Your task to perform on an android device: Add logitech g933 to the cart on bestbuy, then select checkout. Image 0: 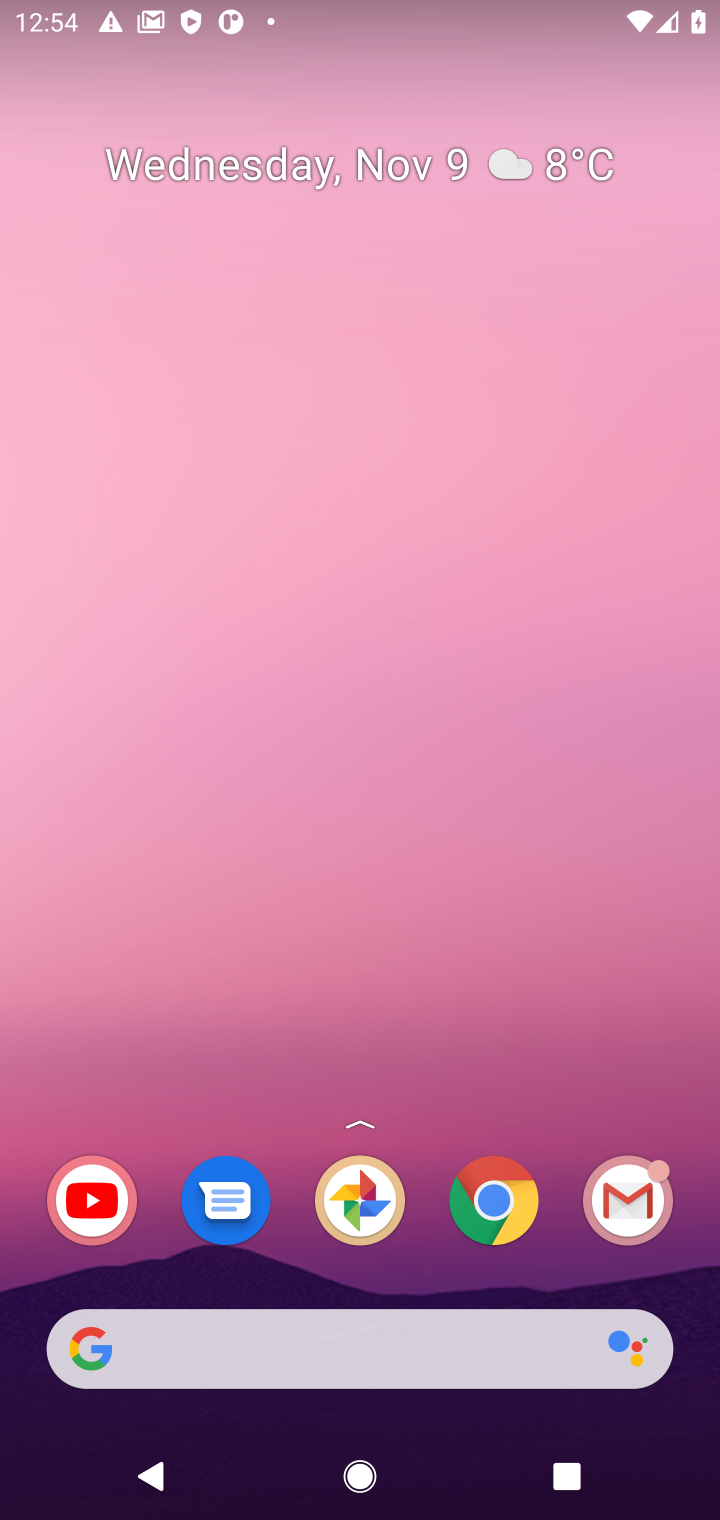
Step 0: click (287, 1377)
Your task to perform on an android device: Add logitech g933 to the cart on bestbuy, then select checkout. Image 1: 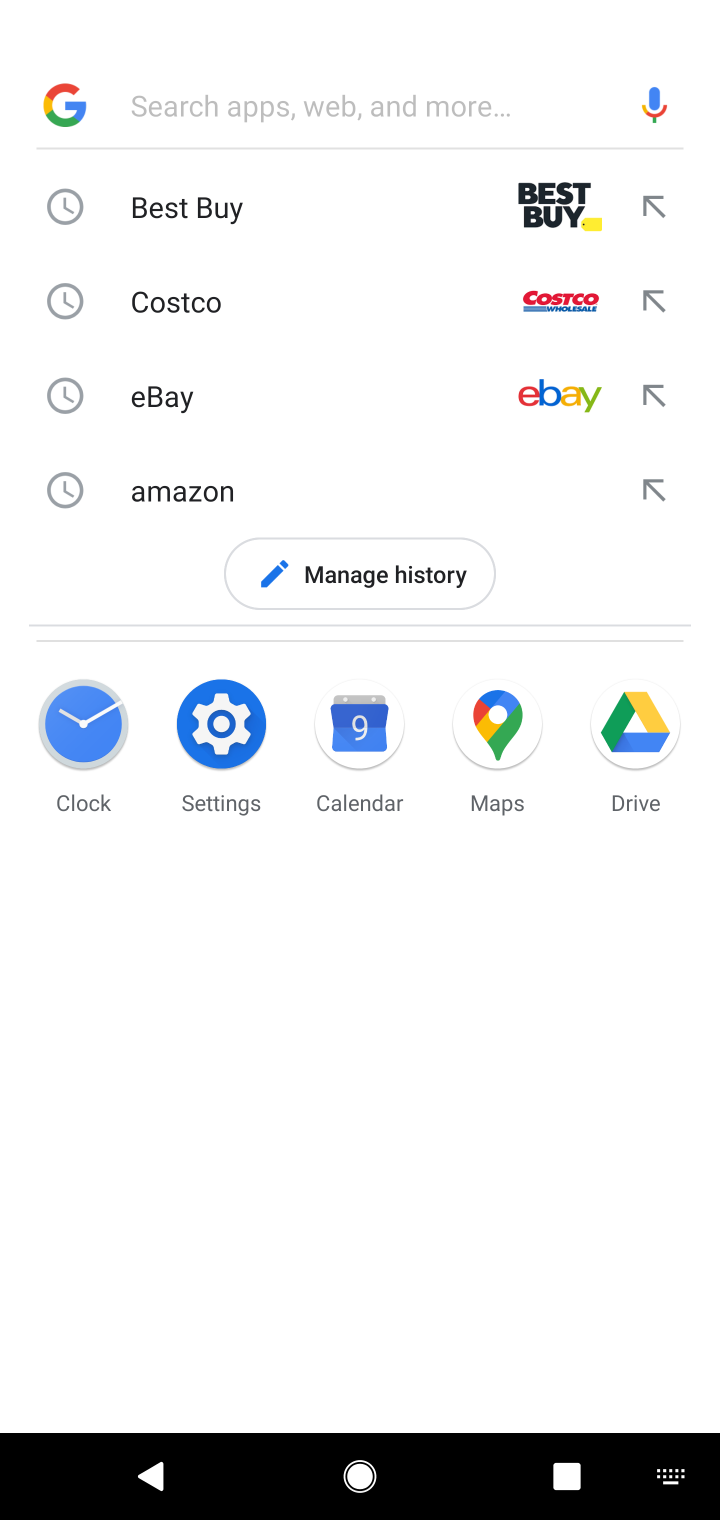
Step 1: click (145, 222)
Your task to perform on an android device: Add logitech g933 to the cart on bestbuy, then select checkout. Image 2: 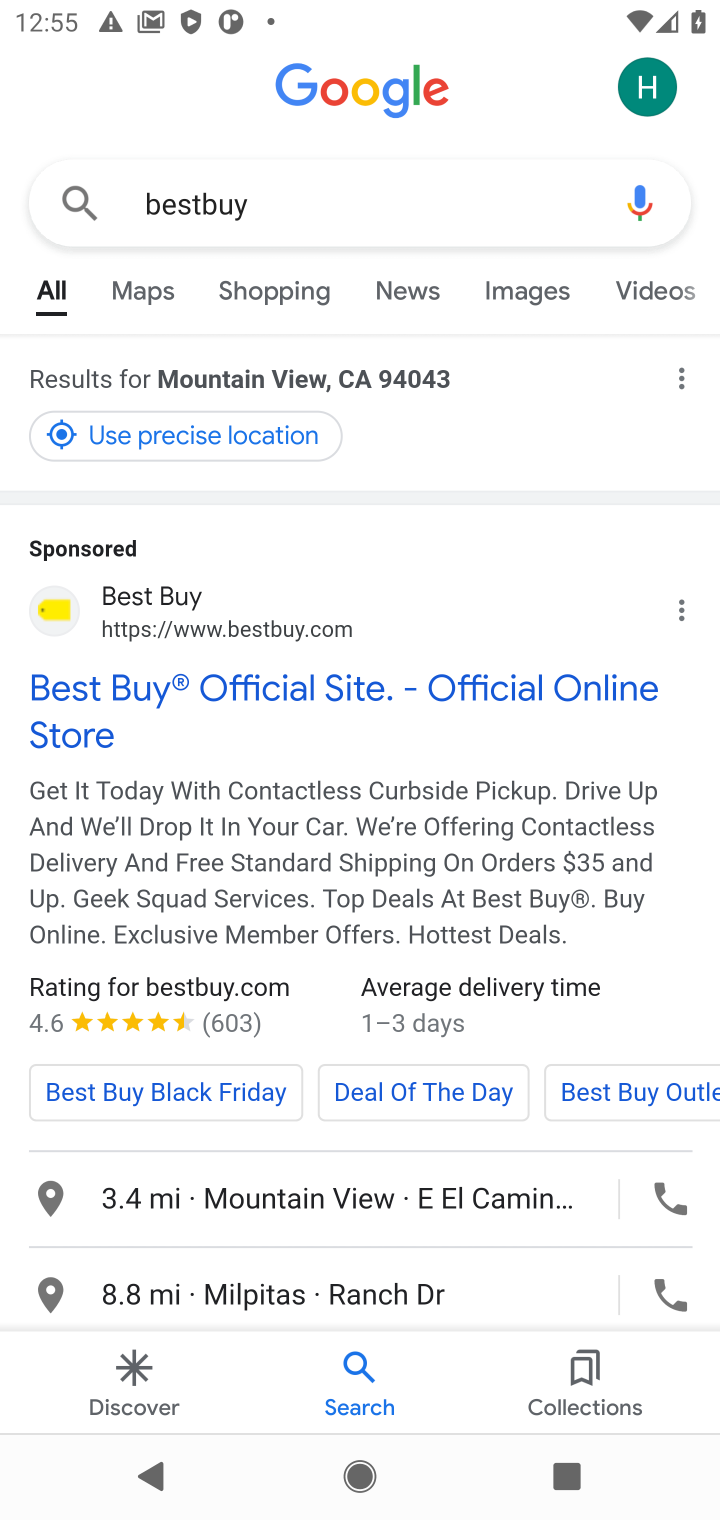
Step 2: click (142, 699)
Your task to perform on an android device: Add logitech g933 to the cart on bestbuy, then select checkout. Image 3: 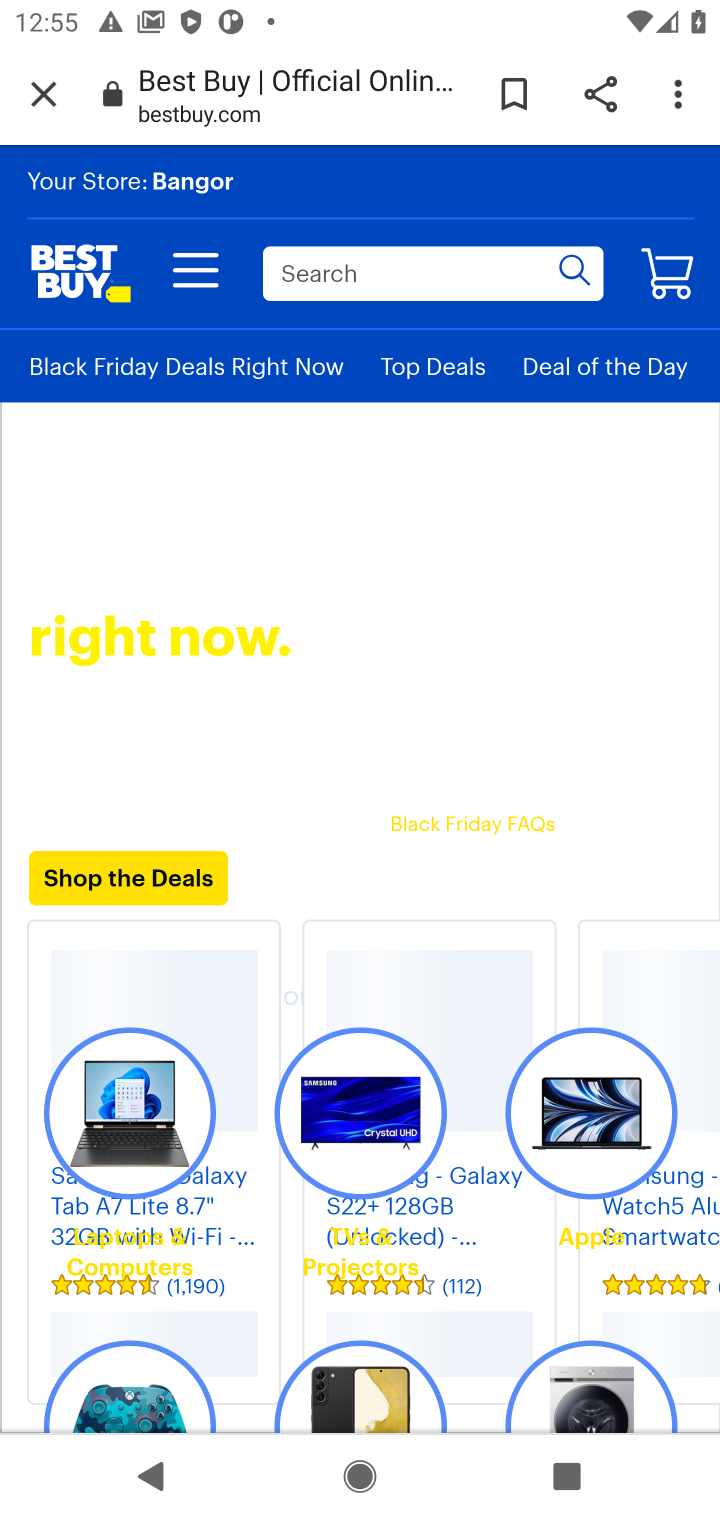
Step 3: task complete